Your task to perform on an android device: open chrome and create a bookmark for the current page Image 0: 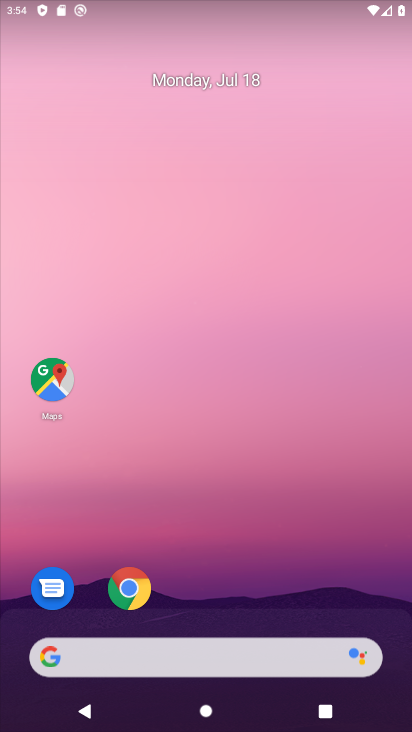
Step 0: click (118, 579)
Your task to perform on an android device: open chrome and create a bookmark for the current page Image 1: 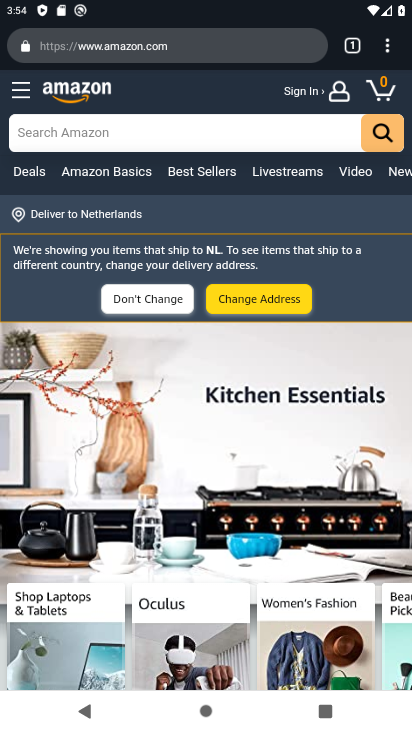
Step 1: click (384, 63)
Your task to perform on an android device: open chrome and create a bookmark for the current page Image 2: 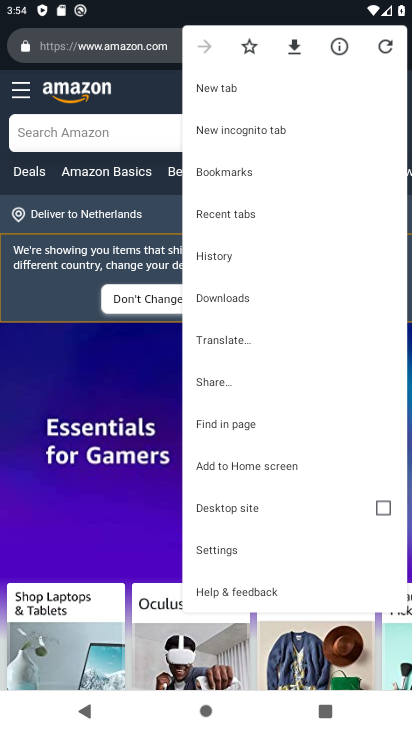
Step 2: click (248, 49)
Your task to perform on an android device: open chrome and create a bookmark for the current page Image 3: 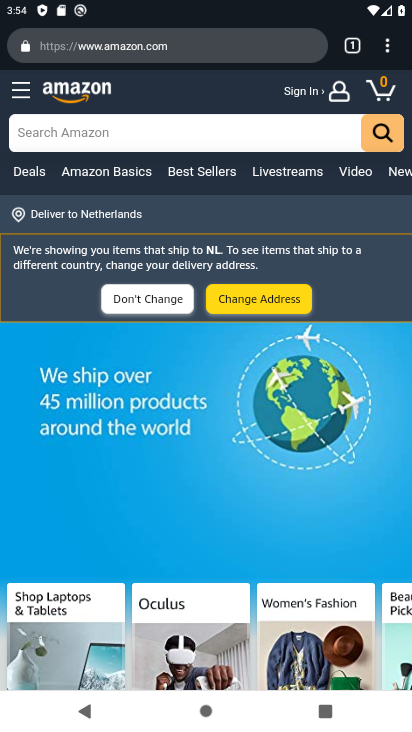
Step 3: task complete